Your task to perform on an android device: Go to internet settings Image 0: 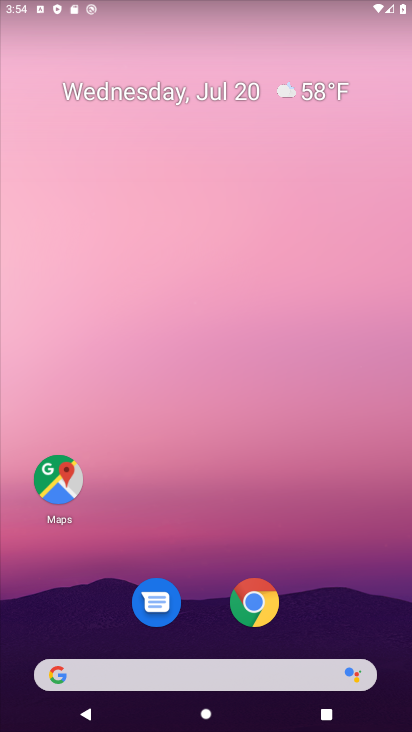
Step 0: drag from (197, 623) to (209, 78)
Your task to perform on an android device: Go to internet settings Image 1: 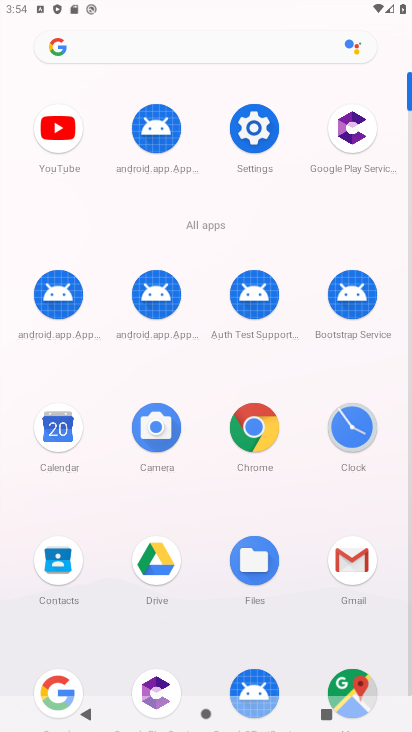
Step 1: click (257, 131)
Your task to perform on an android device: Go to internet settings Image 2: 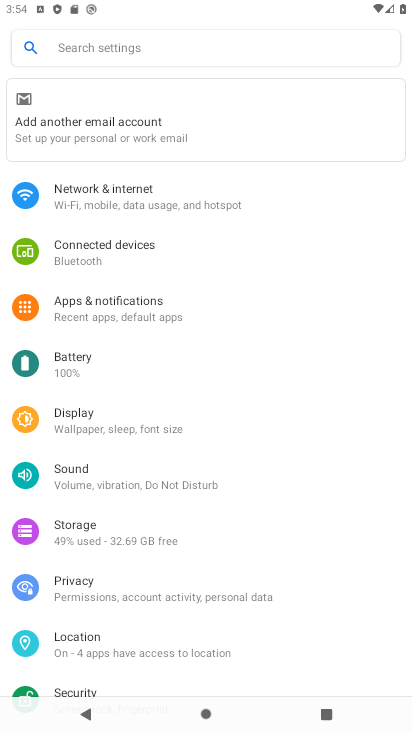
Step 2: click (101, 198)
Your task to perform on an android device: Go to internet settings Image 3: 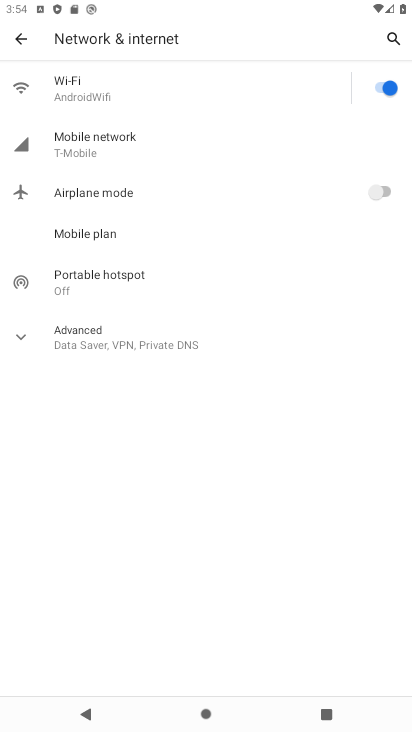
Step 3: task complete